Your task to perform on an android device: Open sound settings Image 0: 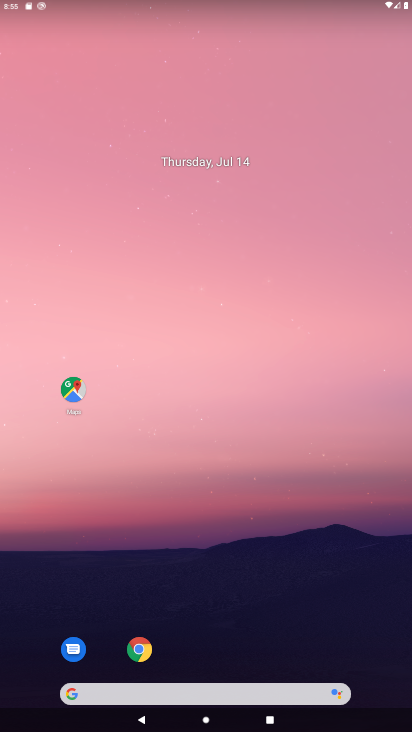
Step 0: drag from (198, 639) to (216, 0)
Your task to perform on an android device: Open sound settings Image 1: 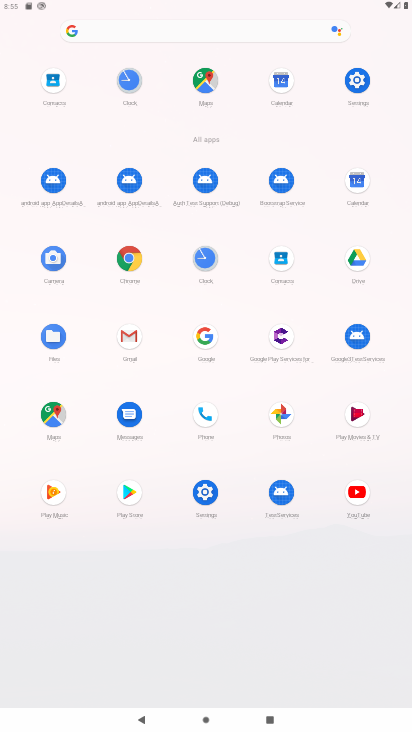
Step 1: click (212, 503)
Your task to perform on an android device: Open sound settings Image 2: 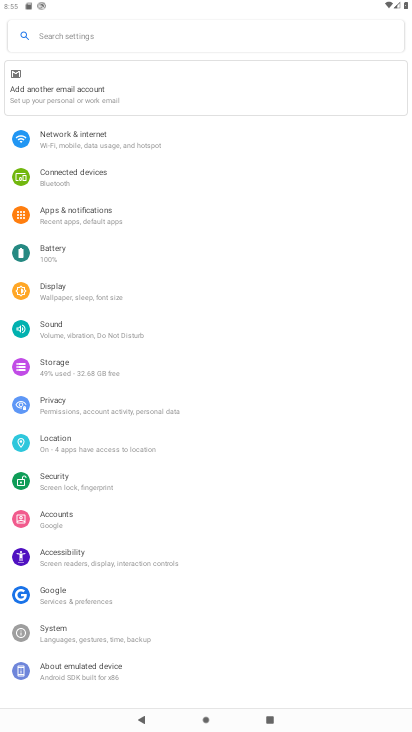
Step 2: click (96, 335)
Your task to perform on an android device: Open sound settings Image 3: 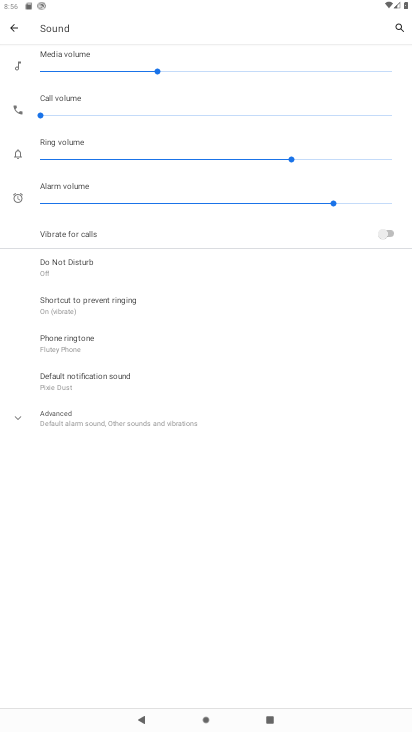
Step 3: task complete